Your task to perform on an android device: turn off priority inbox in the gmail app Image 0: 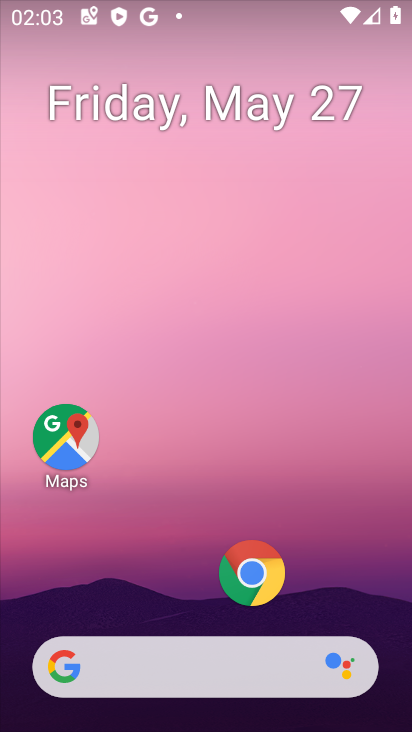
Step 0: drag from (276, 635) to (205, 52)
Your task to perform on an android device: turn off priority inbox in the gmail app Image 1: 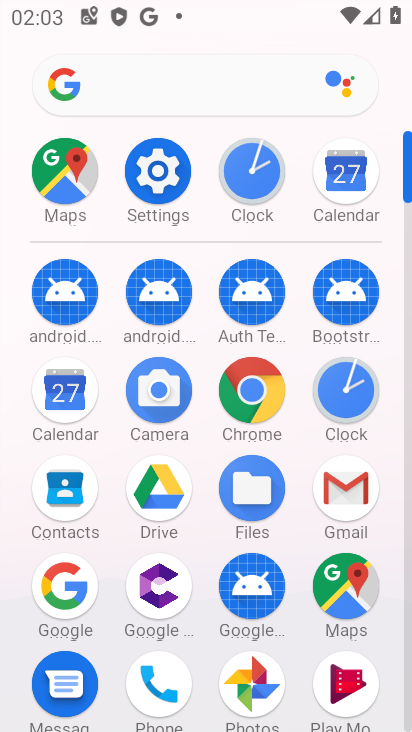
Step 1: click (354, 515)
Your task to perform on an android device: turn off priority inbox in the gmail app Image 2: 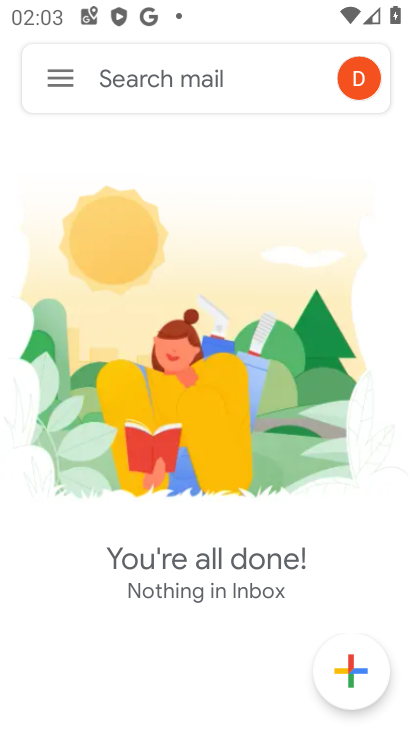
Step 2: click (66, 63)
Your task to perform on an android device: turn off priority inbox in the gmail app Image 3: 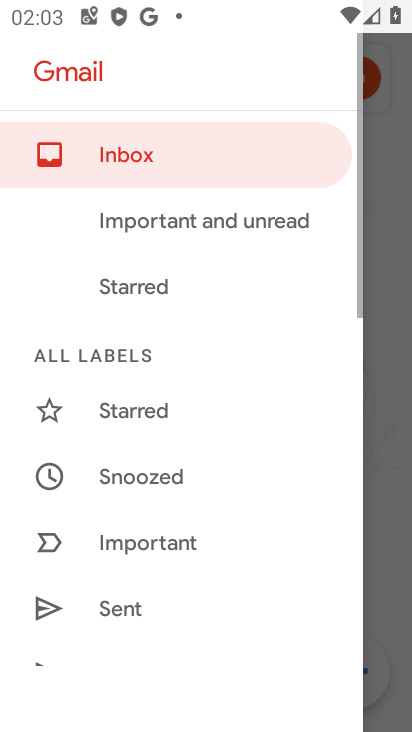
Step 3: drag from (134, 606) to (51, 0)
Your task to perform on an android device: turn off priority inbox in the gmail app Image 4: 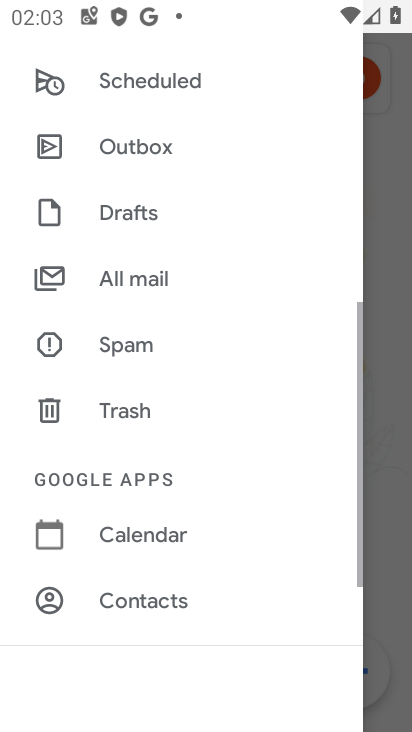
Step 4: drag from (147, 541) to (155, 15)
Your task to perform on an android device: turn off priority inbox in the gmail app Image 5: 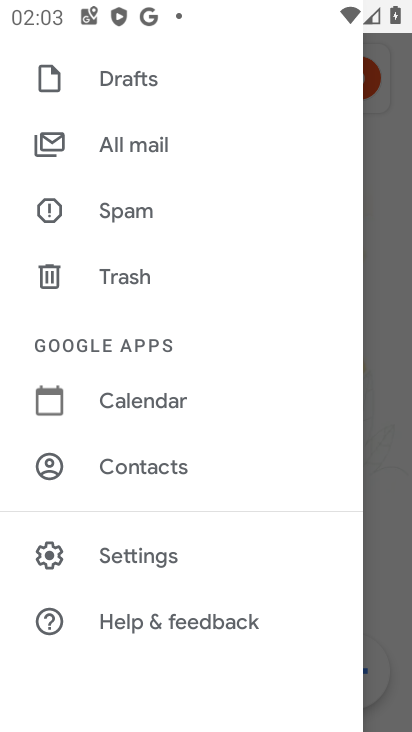
Step 5: click (162, 558)
Your task to perform on an android device: turn off priority inbox in the gmail app Image 6: 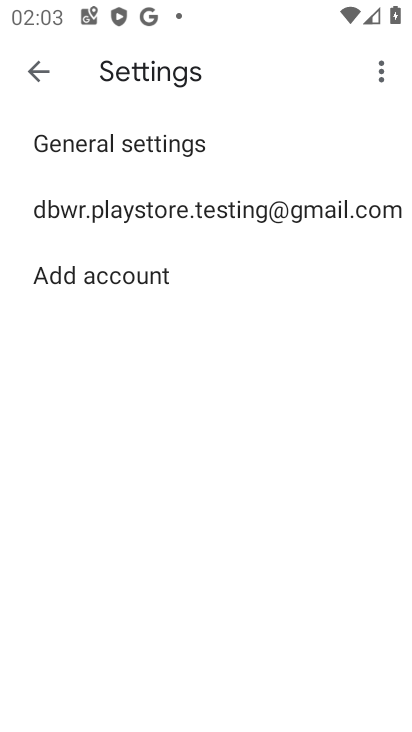
Step 6: click (168, 203)
Your task to perform on an android device: turn off priority inbox in the gmail app Image 7: 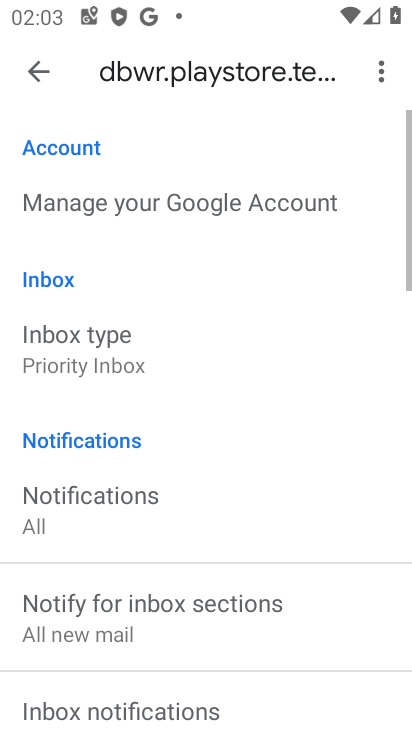
Step 7: click (135, 362)
Your task to perform on an android device: turn off priority inbox in the gmail app Image 8: 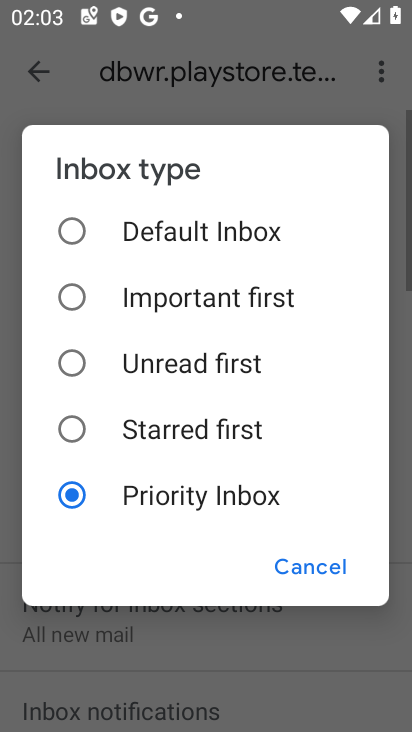
Step 8: click (130, 242)
Your task to perform on an android device: turn off priority inbox in the gmail app Image 9: 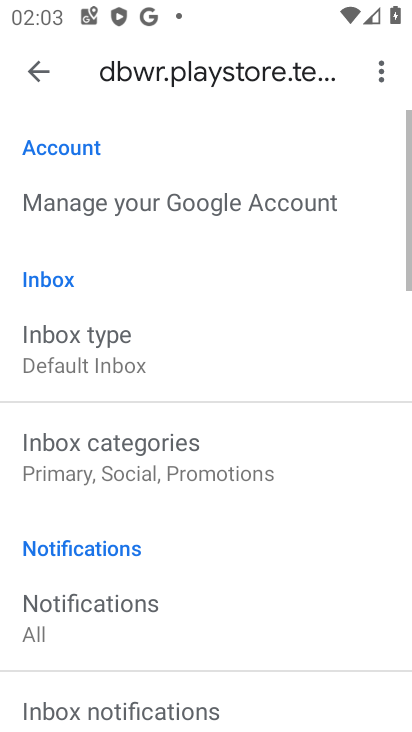
Step 9: task complete